Your task to perform on an android device: turn on data saver in the chrome app Image 0: 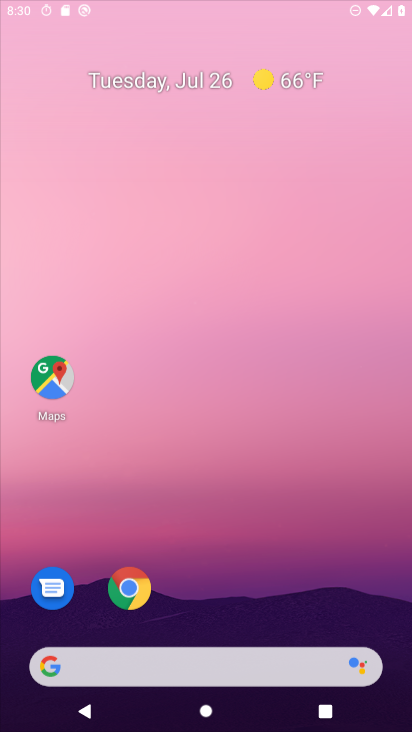
Step 0: click (207, 362)
Your task to perform on an android device: turn on data saver in the chrome app Image 1: 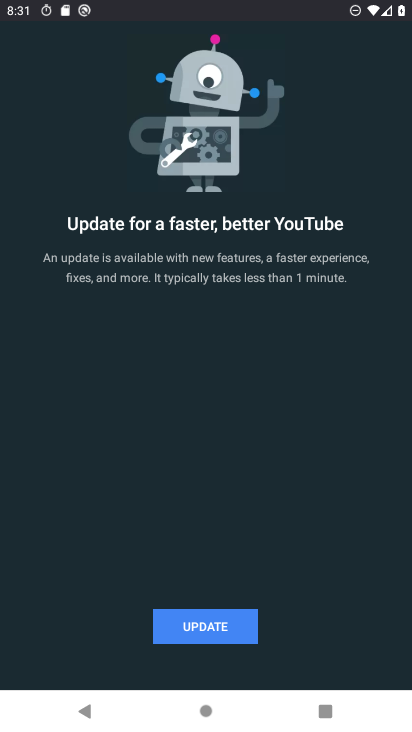
Step 1: press home button
Your task to perform on an android device: turn on data saver in the chrome app Image 2: 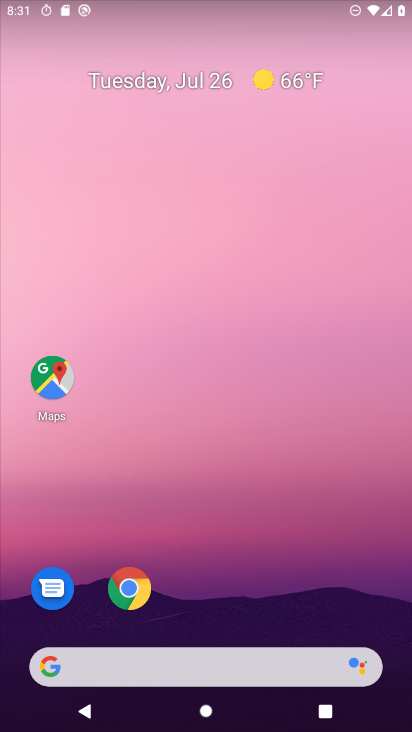
Step 2: drag from (259, 640) to (252, 120)
Your task to perform on an android device: turn on data saver in the chrome app Image 3: 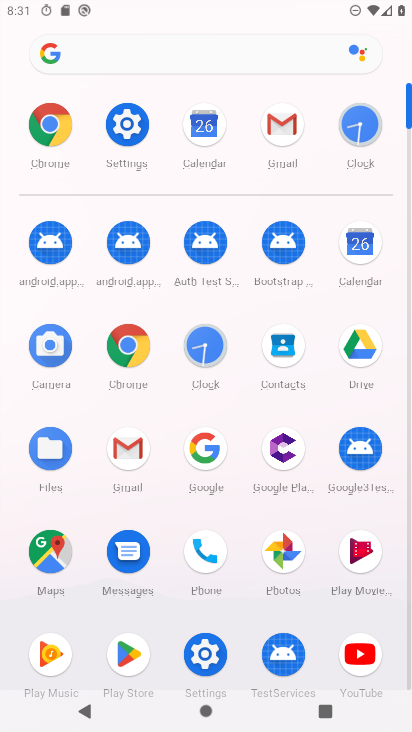
Step 3: click (123, 347)
Your task to perform on an android device: turn on data saver in the chrome app Image 4: 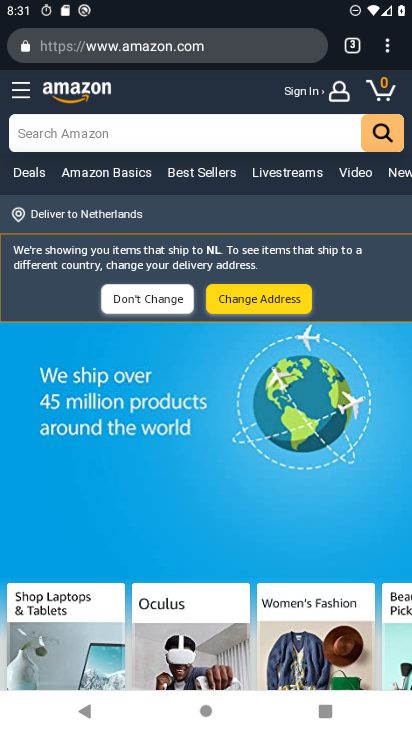
Step 4: click (388, 53)
Your task to perform on an android device: turn on data saver in the chrome app Image 5: 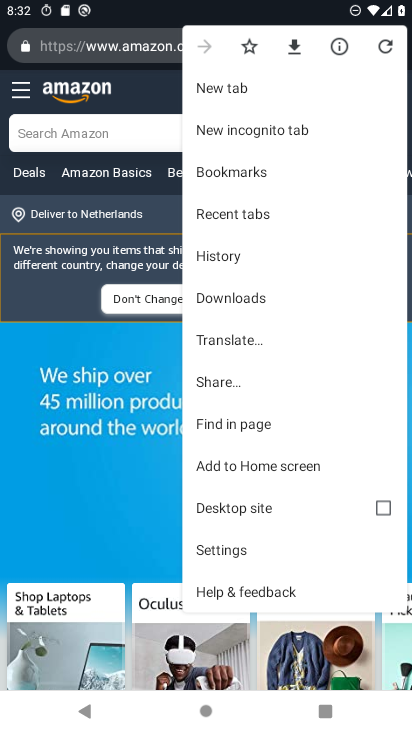
Step 5: click (228, 553)
Your task to perform on an android device: turn on data saver in the chrome app Image 6: 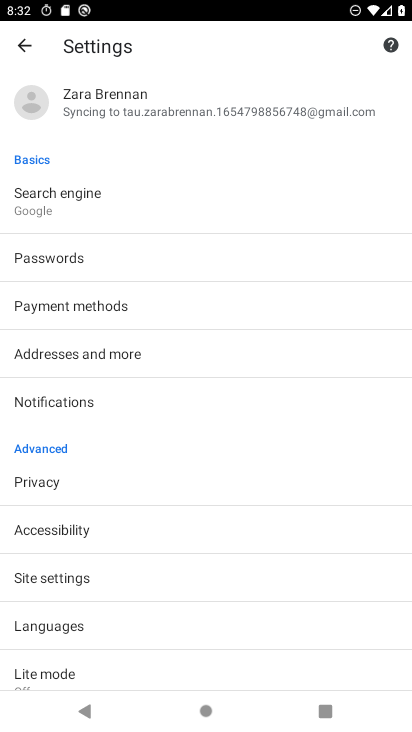
Step 6: click (44, 671)
Your task to perform on an android device: turn on data saver in the chrome app Image 7: 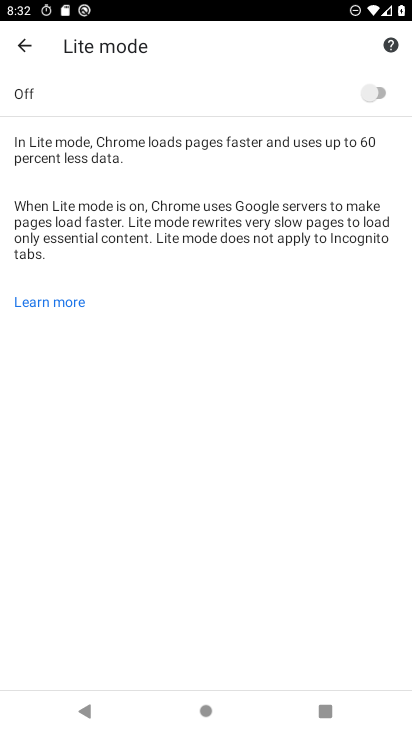
Step 7: click (382, 92)
Your task to perform on an android device: turn on data saver in the chrome app Image 8: 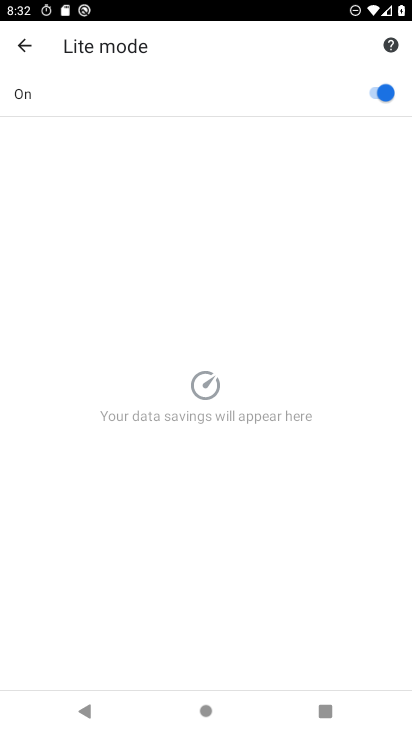
Step 8: task complete